Your task to perform on an android device: set default search engine in the chrome app Image 0: 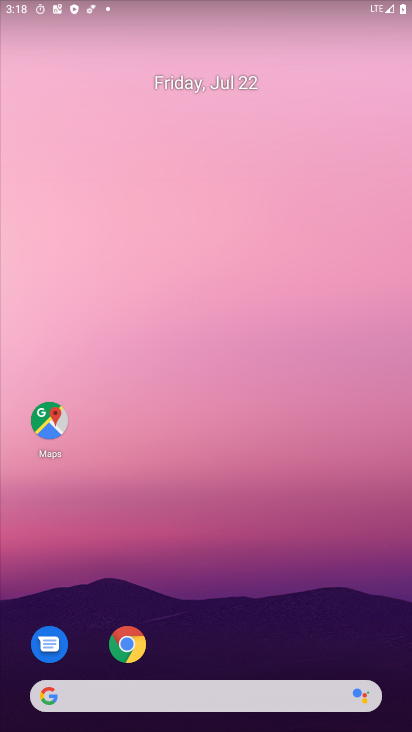
Step 0: drag from (229, 637) to (209, 105)
Your task to perform on an android device: set default search engine in the chrome app Image 1: 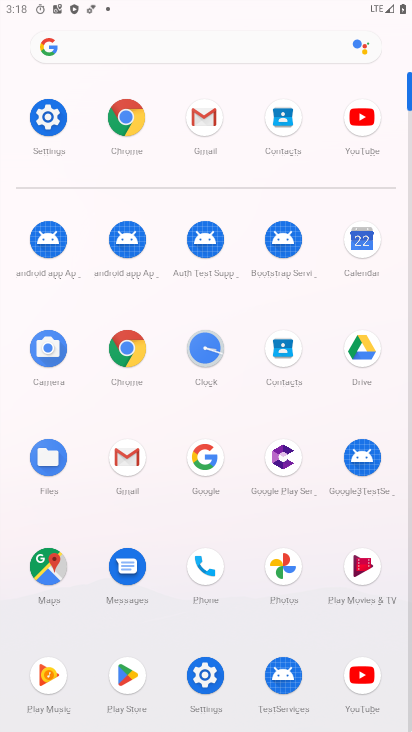
Step 1: click (119, 117)
Your task to perform on an android device: set default search engine in the chrome app Image 2: 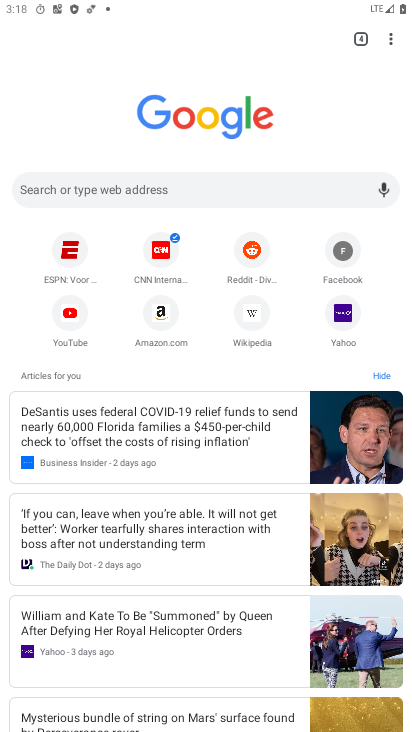
Step 2: drag from (389, 37) to (246, 374)
Your task to perform on an android device: set default search engine in the chrome app Image 3: 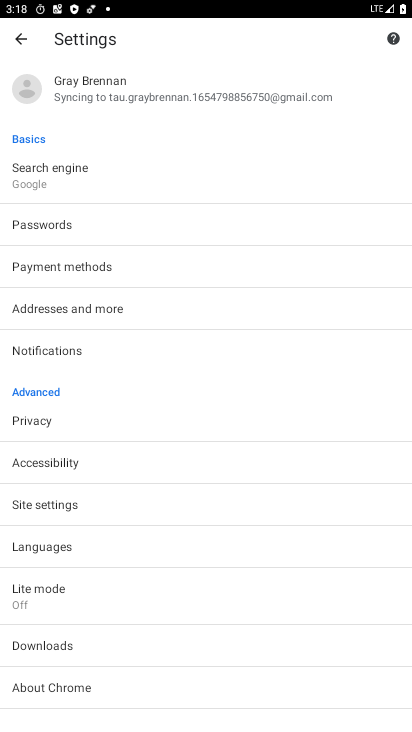
Step 3: click (41, 167)
Your task to perform on an android device: set default search engine in the chrome app Image 4: 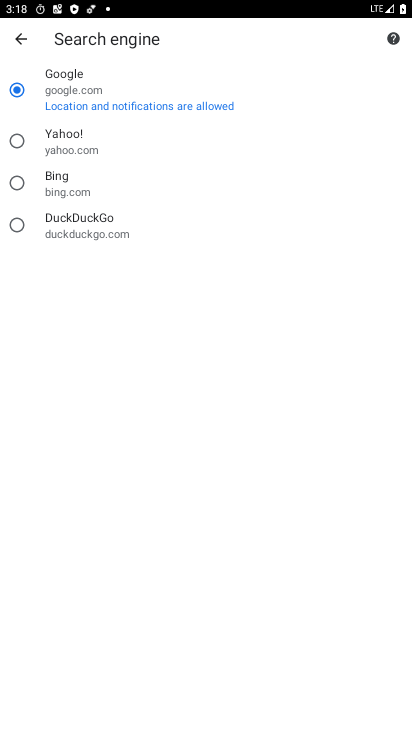
Step 4: click (13, 148)
Your task to perform on an android device: set default search engine in the chrome app Image 5: 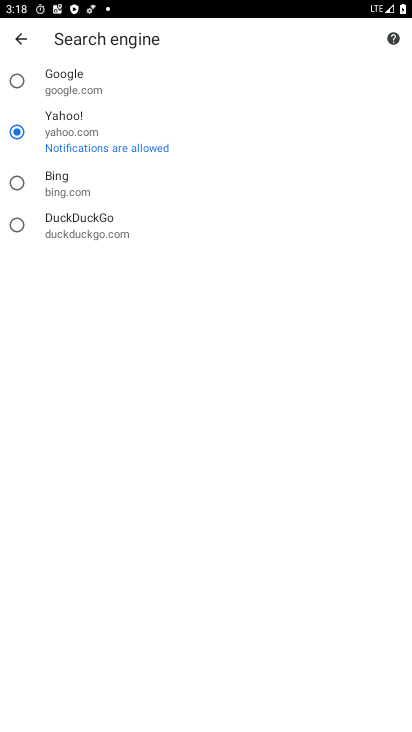
Step 5: task complete